Your task to perform on an android device: delete the emails in spam in the gmail app Image 0: 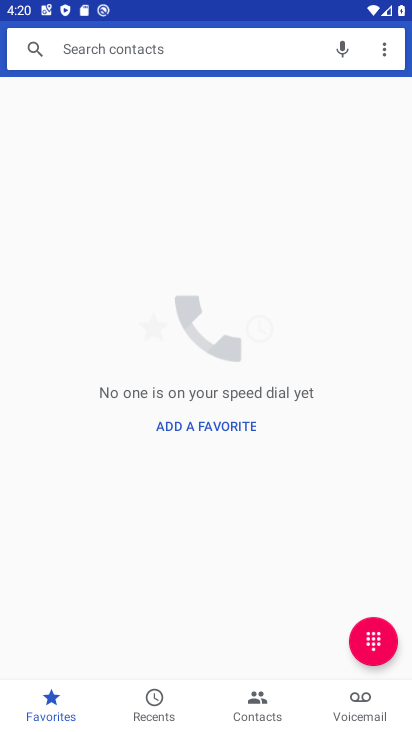
Step 0: press home button
Your task to perform on an android device: delete the emails in spam in the gmail app Image 1: 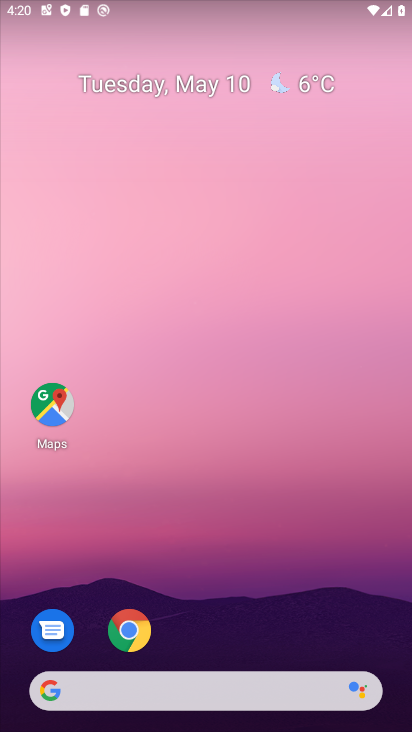
Step 1: drag from (235, 571) to (312, 96)
Your task to perform on an android device: delete the emails in spam in the gmail app Image 2: 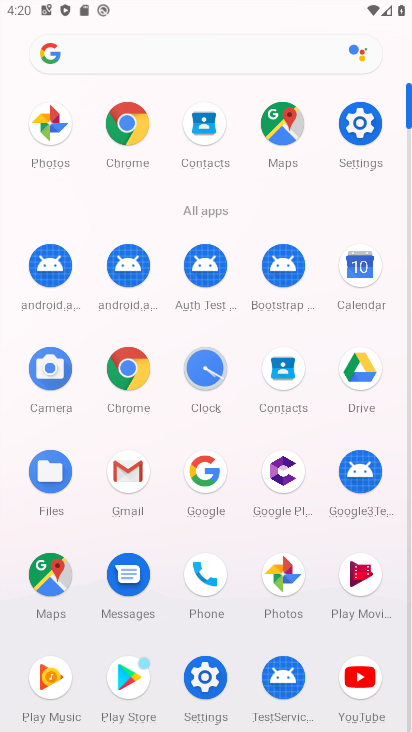
Step 2: click (121, 470)
Your task to perform on an android device: delete the emails in spam in the gmail app Image 3: 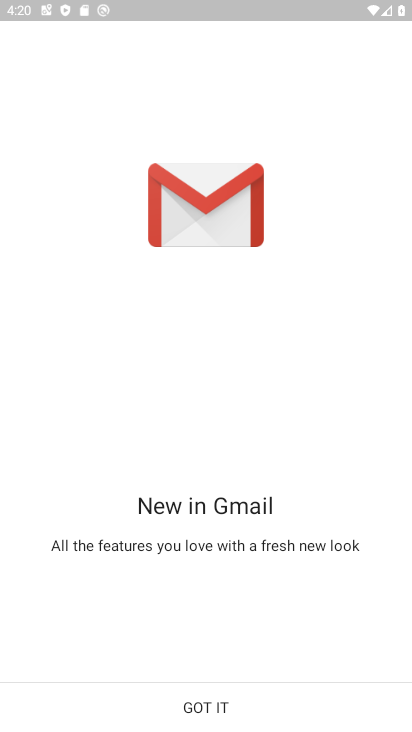
Step 3: click (218, 710)
Your task to perform on an android device: delete the emails in spam in the gmail app Image 4: 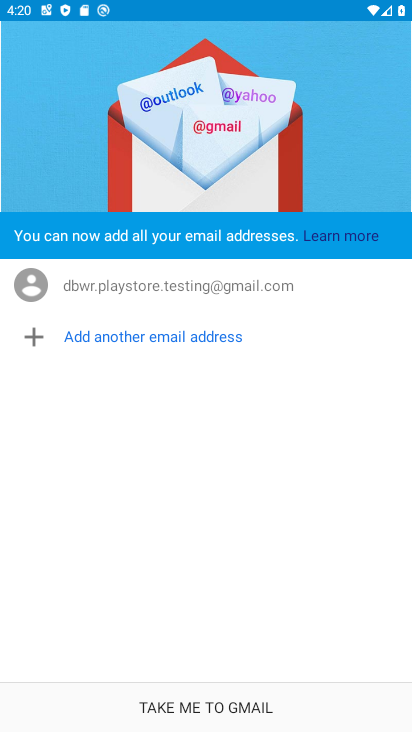
Step 4: click (218, 710)
Your task to perform on an android device: delete the emails in spam in the gmail app Image 5: 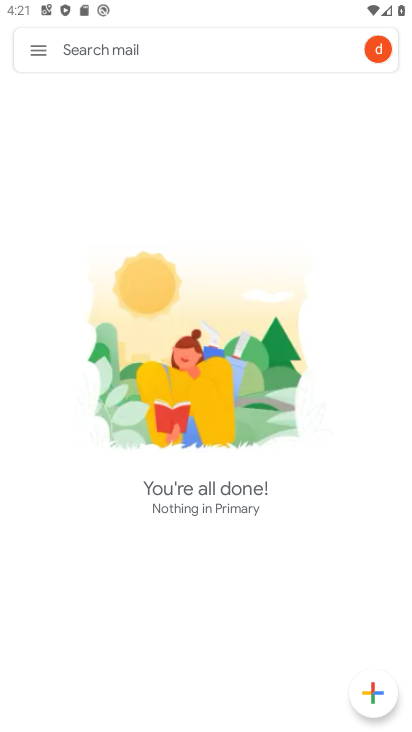
Step 5: click (42, 36)
Your task to perform on an android device: delete the emails in spam in the gmail app Image 6: 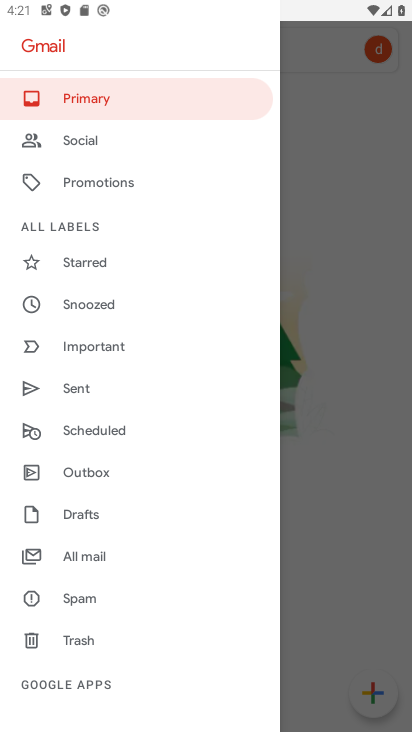
Step 6: click (89, 593)
Your task to perform on an android device: delete the emails in spam in the gmail app Image 7: 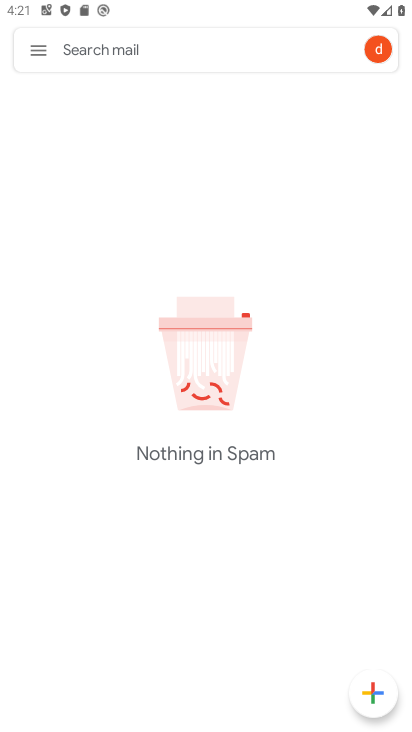
Step 7: task complete